Your task to perform on an android device: open chrome and create a bookmark for the current page Image 0: 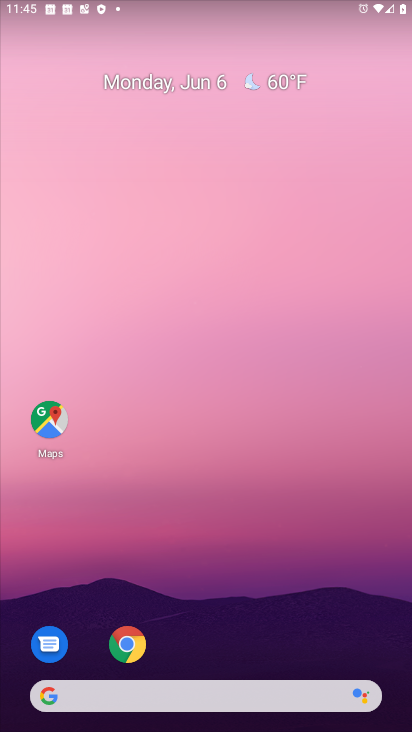
Step 0: click (138, 661)
Your task to perform on an android device: open chrome and create a bookmark for the current page Image 1: 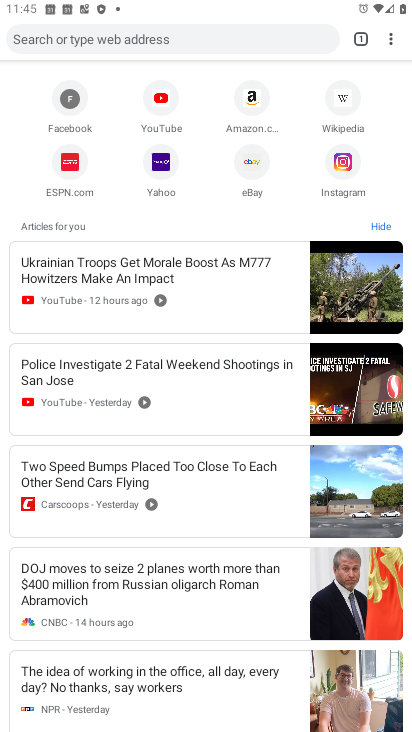
Step 1: click (389, 40)
Your task to perform on an android device: open chrome and create a bookmark for the current page Image 2: 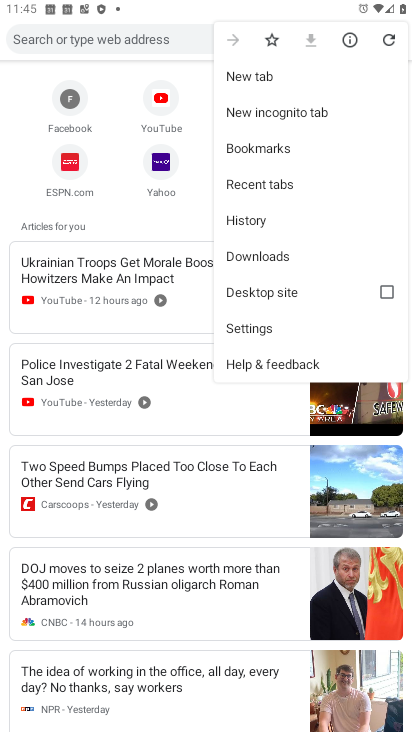
Step 2: click (268, 46)
Your task to perform on an android device: open chrome and create a bookmark for the current page Image 3: 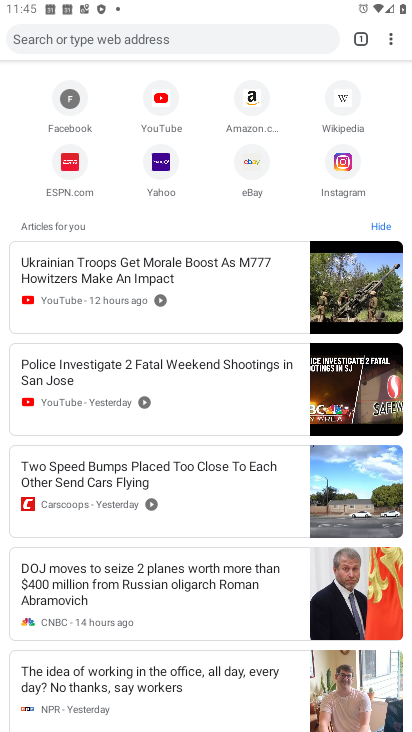
Step 3: task complete